Your task to perform on an android device: What's the weather? Image 0: 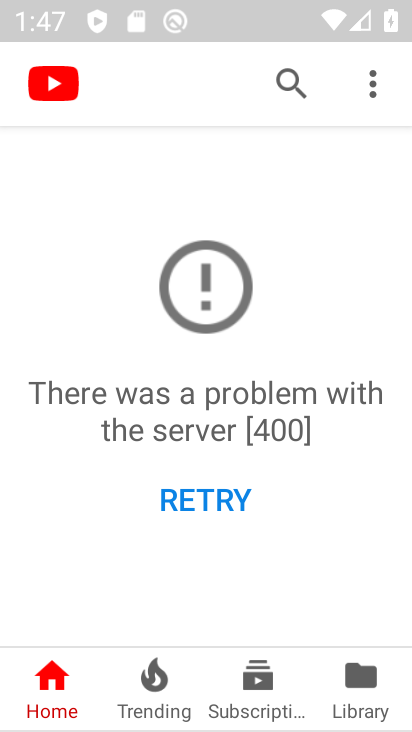
Step 0: press home button
Your task to perform on an android device: What's the weather? Image 1: 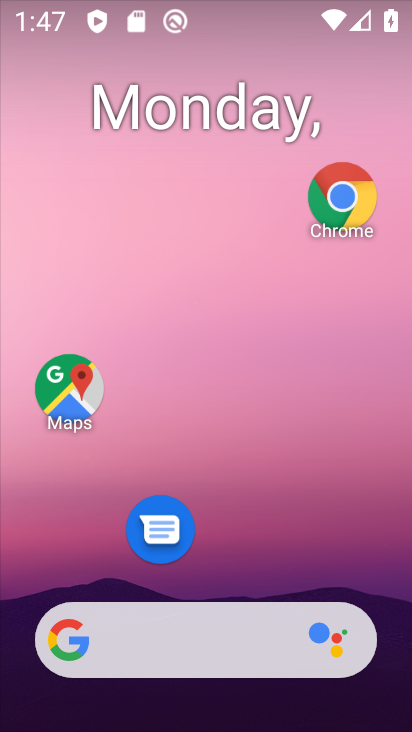
Step 1: click (162, 650)
Your task to perform on an android device: What's the weather? Image 2: 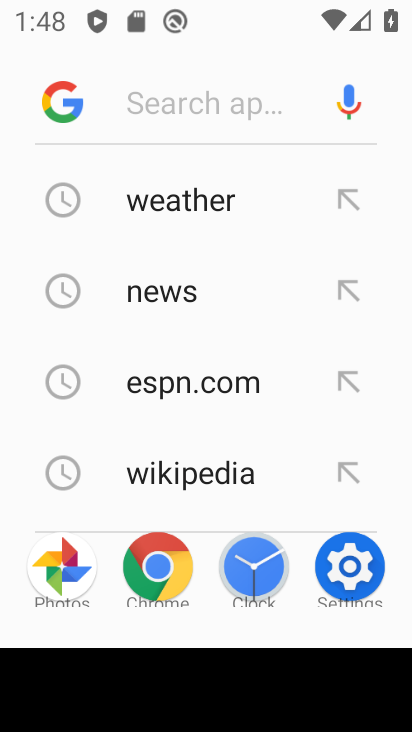
Step 2: click (166, 206)
Your task to perform on an android device: What's the weather? Image 3: 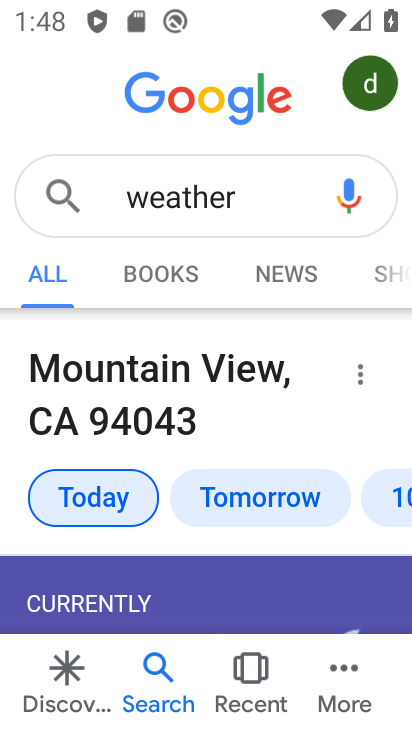
Step 3: click (108, 492)
Your task to perform on an android device: What's the weather? Image 4: 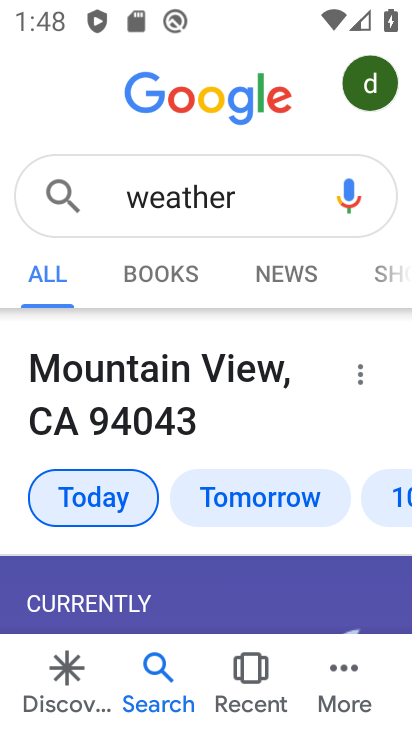
Step 4: task complete